Your task to perform on an android device: Open settings Image 0: 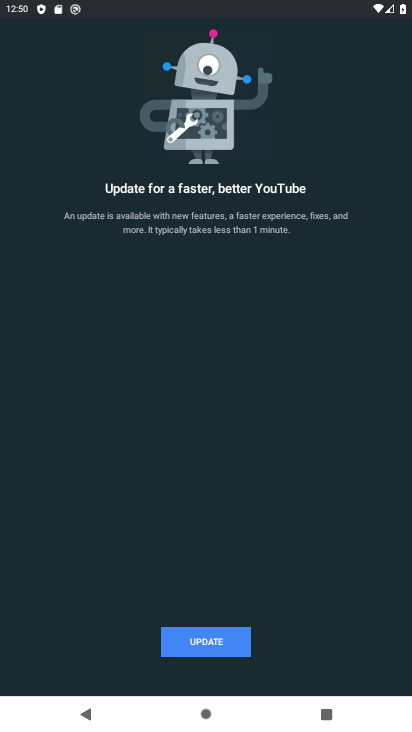
Step 0: press home button
Your task to perform on an android device: Open settings Image 1: 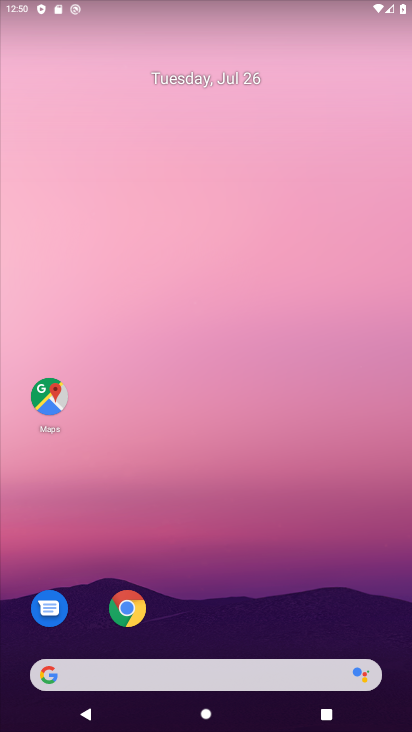
Step 1: drag from (280, 548) to (330, 268)
Your task to perform on an android device: Open settings Image 2: 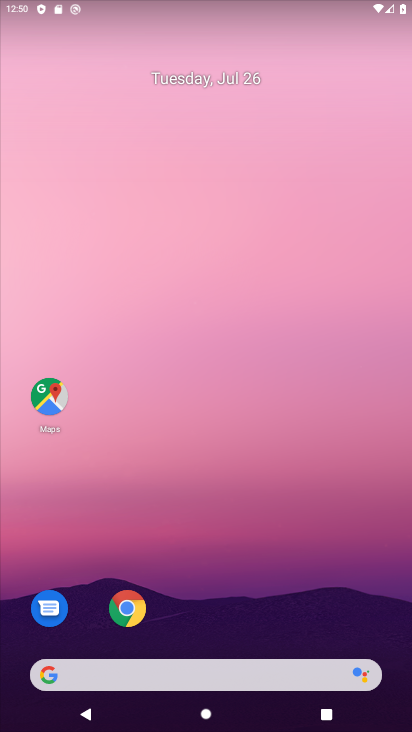
Step 2: drag from (269, 628) to (313, 259)
Your task to perform on an android device: Open settings Image 3: 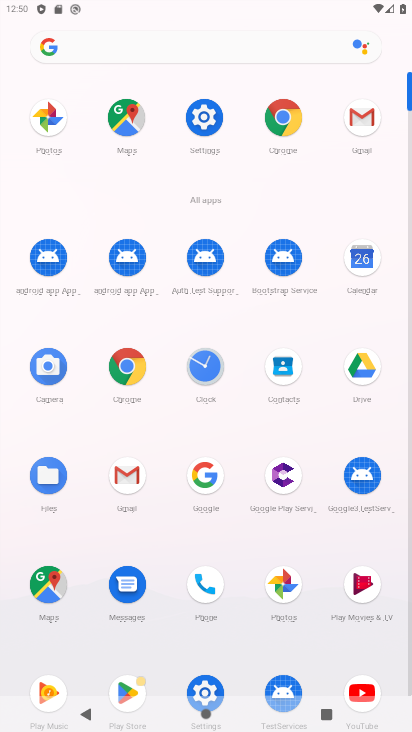
Step 3: click (207, 113)
Your task to perform on an android device: Open settings Image 4: 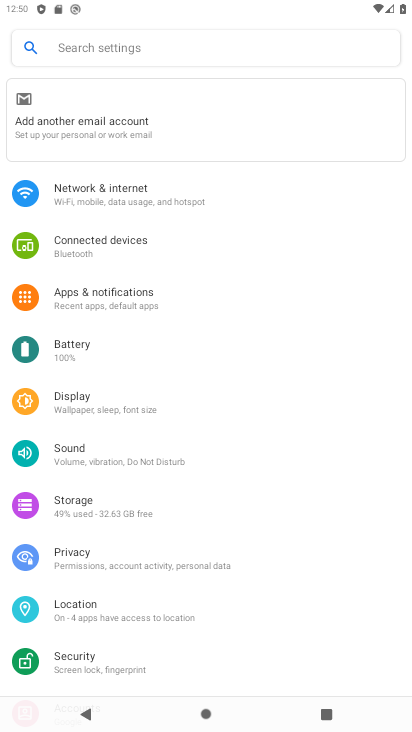
Step 4: task complete